Your task to perform on an android device: Search for Mexican restaurants on Maps Image 0: 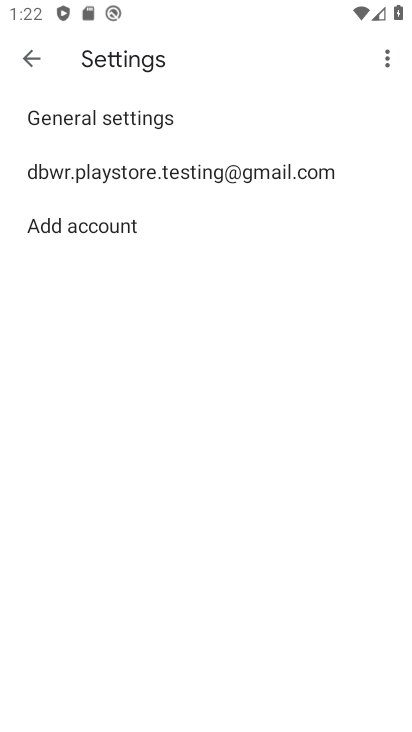
Step 0: press home button
Your task to perform on an android device: Search for Mexican restaurants on Maps Image 1: 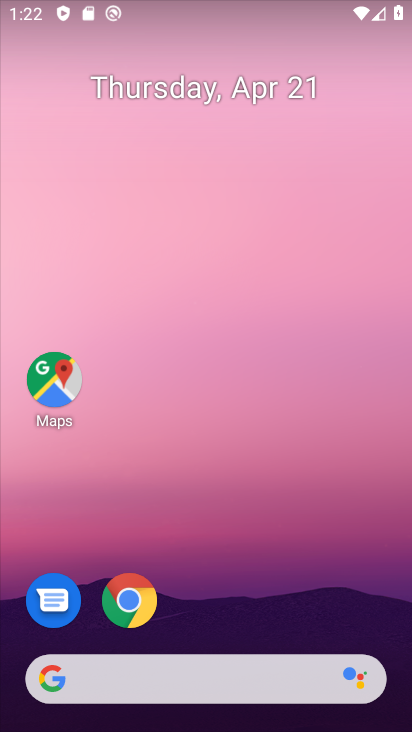
Step 1: click (49, 368)
Your task to perform on an android device: Search for Mexican restaurants on Maps Image 2: 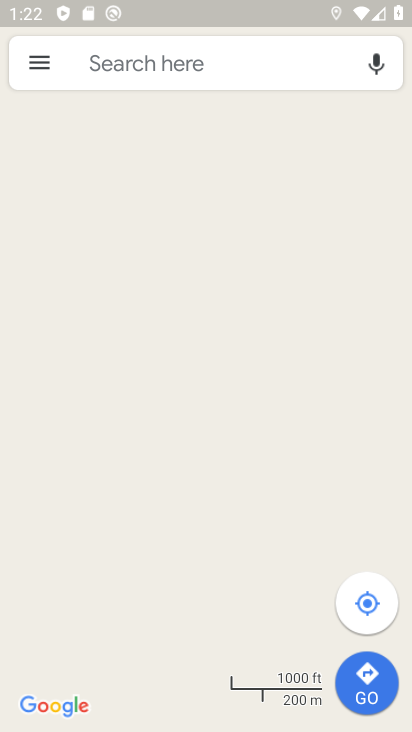
Step 2: click (188, 53)
Your task to perform on an android device: Search for Mexican restaurants on Maps Image 3: 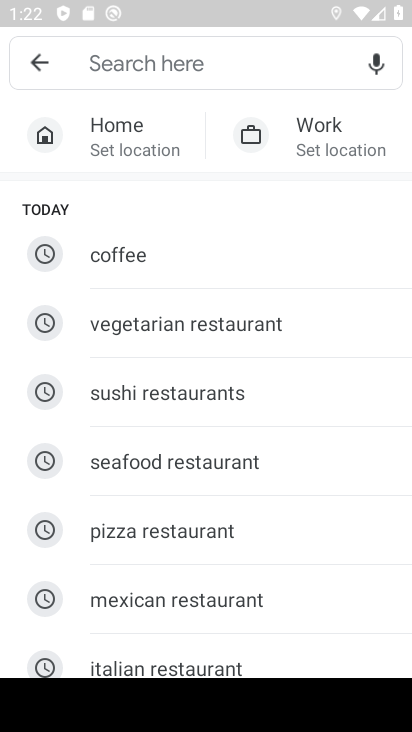
Step 3: type "mexican restaurants"
Your task to perform on an android device: Search for Mexican restaurants on Maps Image 4: 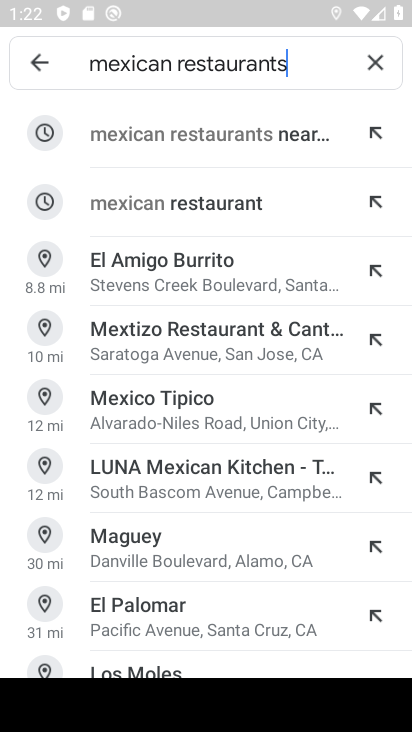
Step 4: click (241, 206)
Your task to perform on an android device: Search for Mexican restaurants on Maps Image 5: 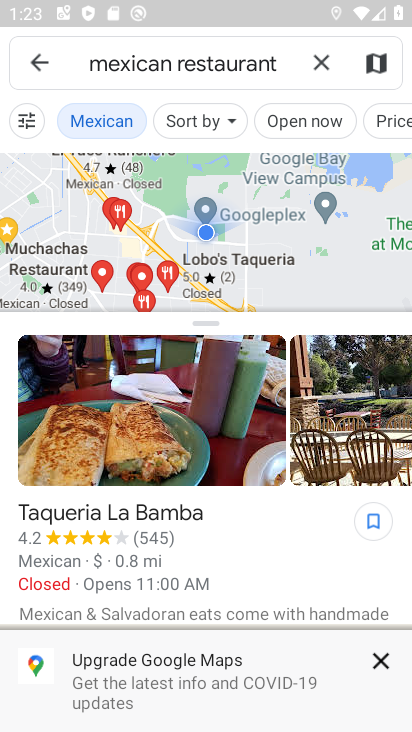
Step 5: task complete